Your task to perform on an android device: Open Chrome and go to settings Image 0: 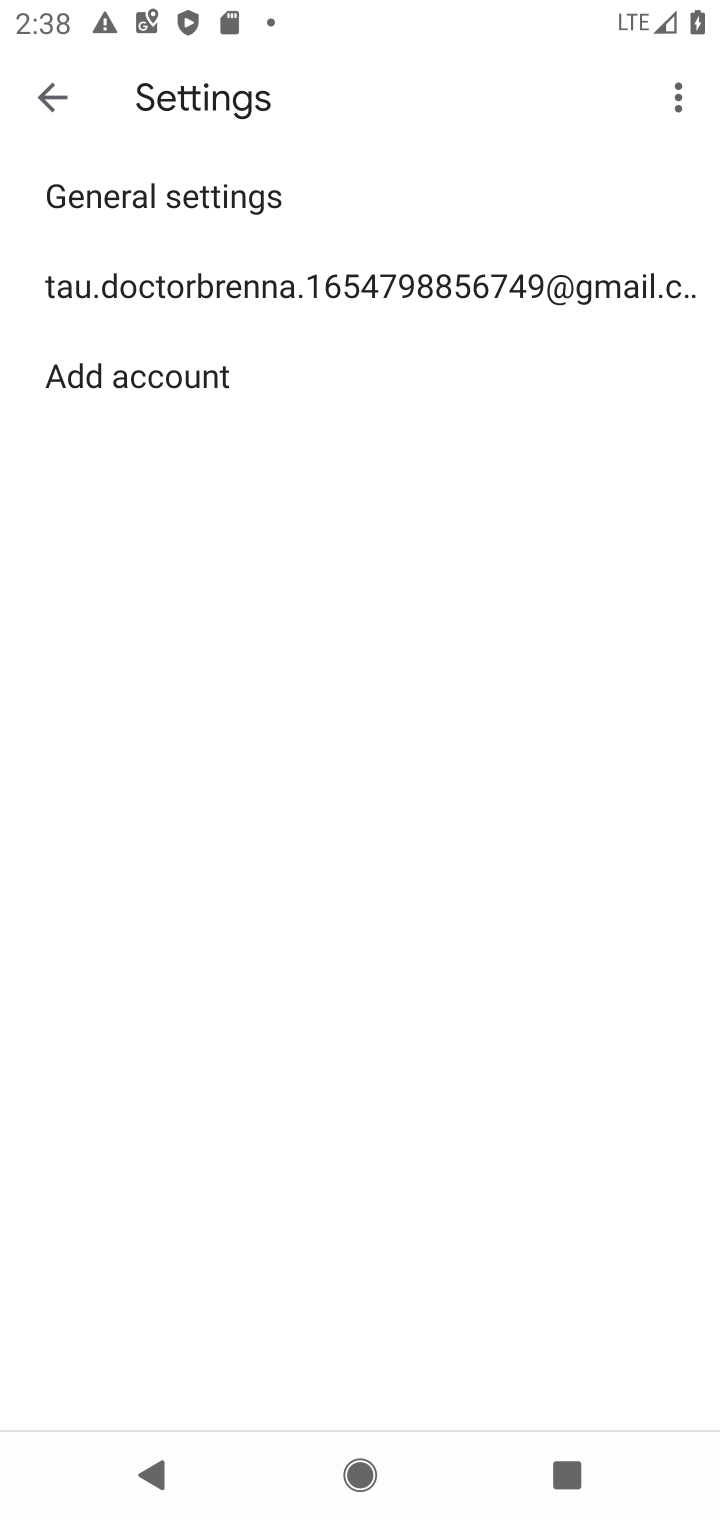
Step 0: press back button
Your task to perform on an android device: Open Chrome and go to settings Image 1: 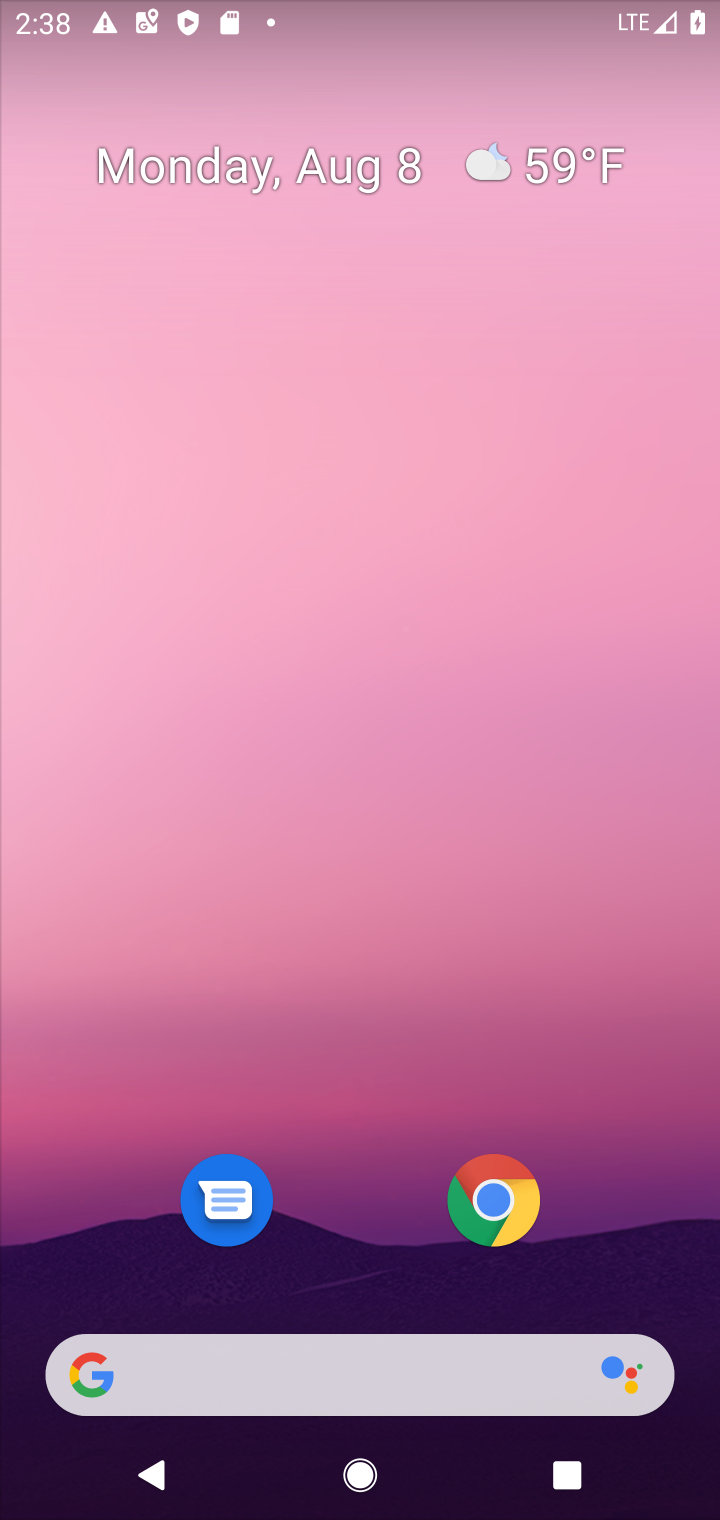
Step 1: drag from (386, 450) to (428, 7)
Your task to perform on an android device: Open Chrome and go to settings Image 2: 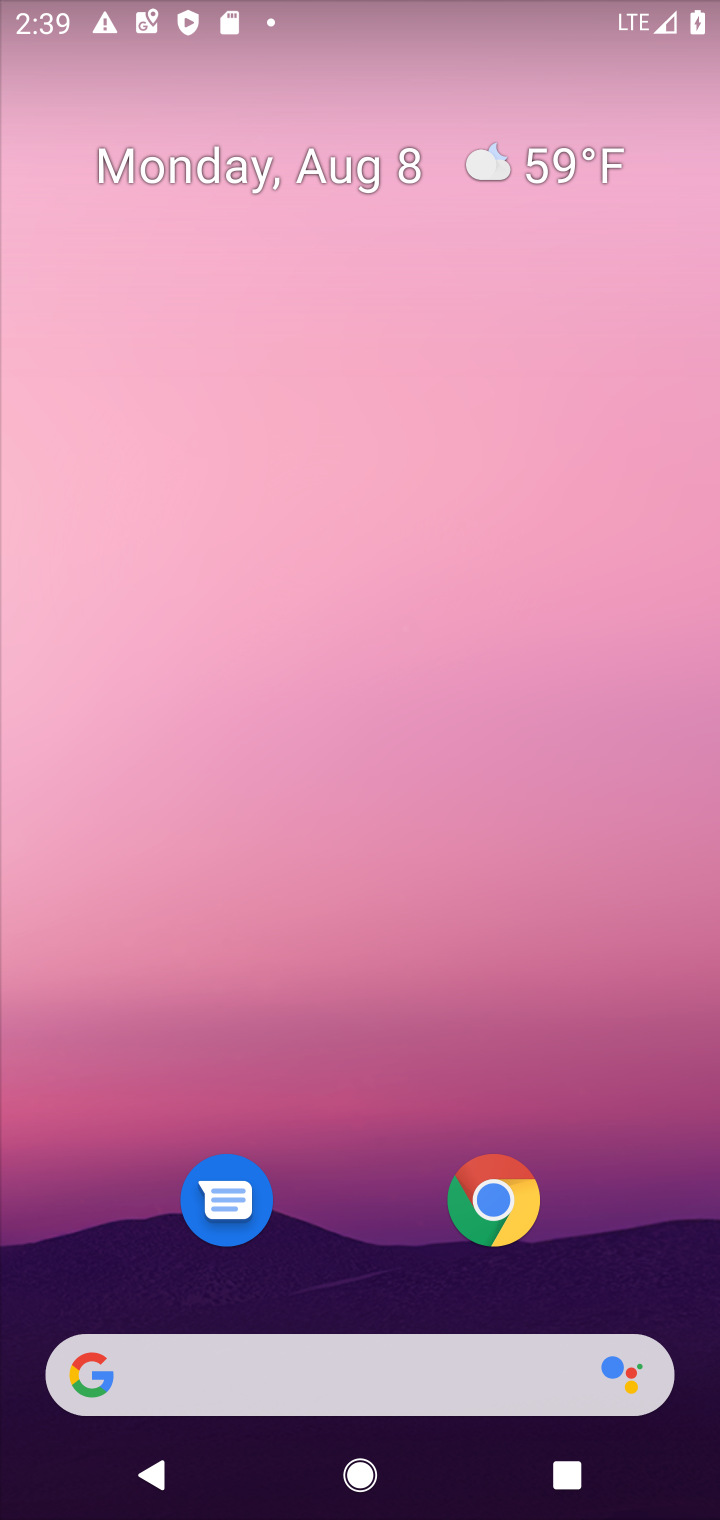
Step 2: drag from (365, 1200) to (455, 58)
Your task to perform on an android device: Open Chrome and go to settings Image 3: 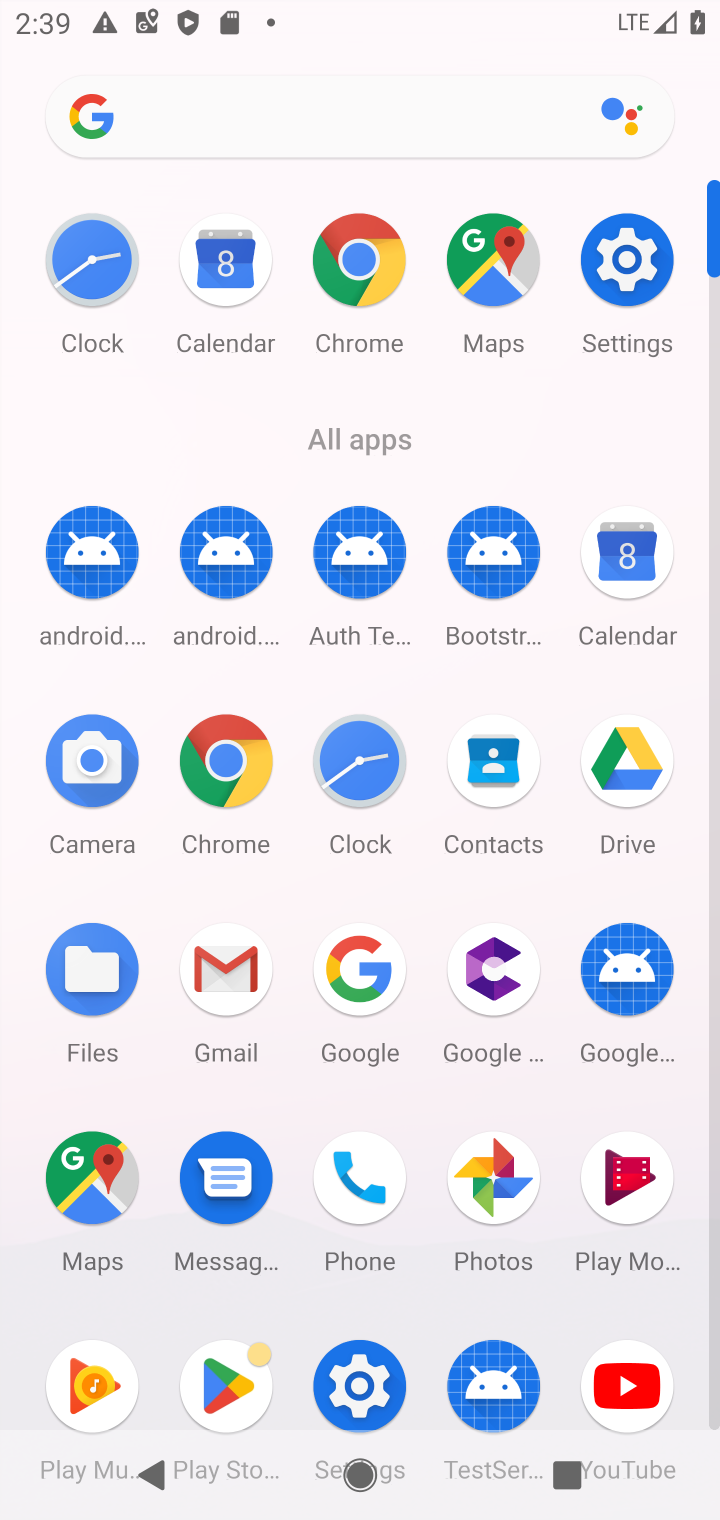
Step 3: click (363, 263)
Your task to perform on an android device: Open Chrome and go to settings Image 4: 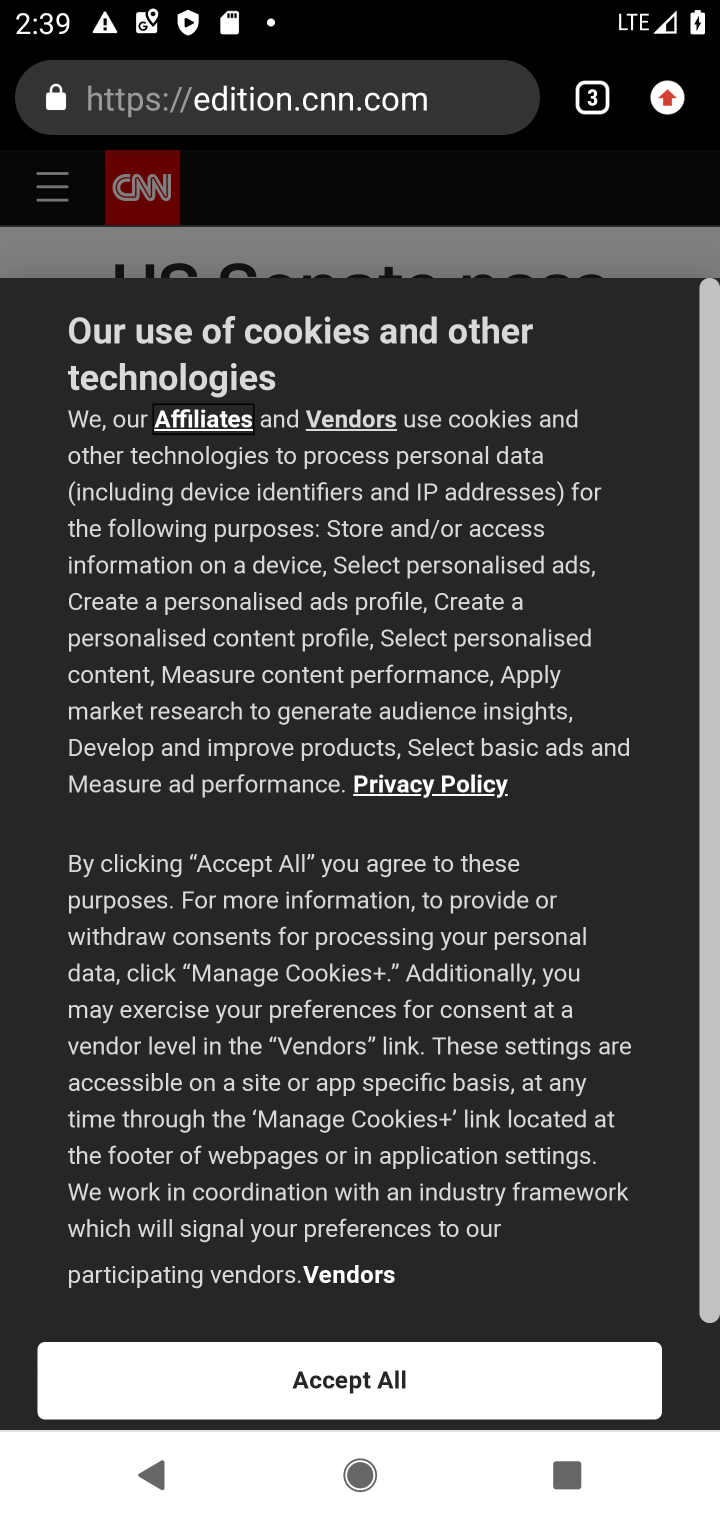
Step 4: task complete